Your task to perform on an android device: Open the calendar and show me this week's events? Image 0: 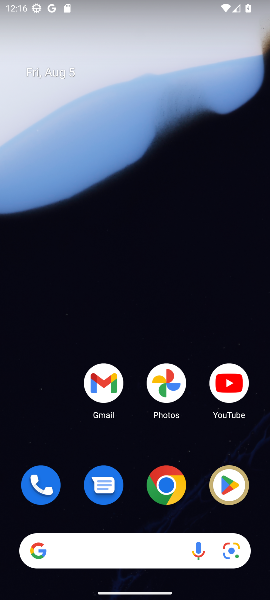
Step 0: drag from (49, 437) to (88, 12)
Your task to perform on an android device: Open the calendar and show me this week's events? Image 1: 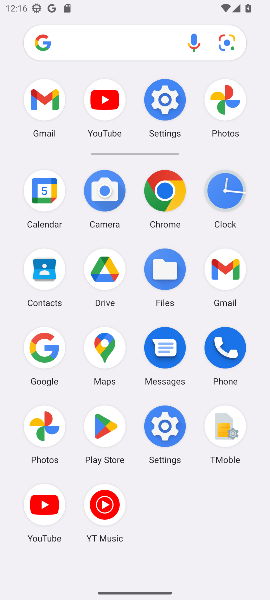
Step 1: click (41, 183)
Your task to perform on an android device: Open the calendar and show me this week's events? Image 2: 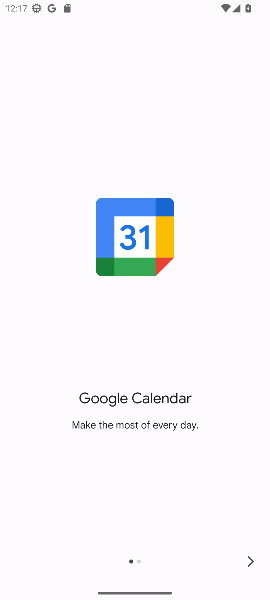
Step 2: click (243, 563)
Your task to perform on an android device: Open the calendar and show me this week's events? Image 3: 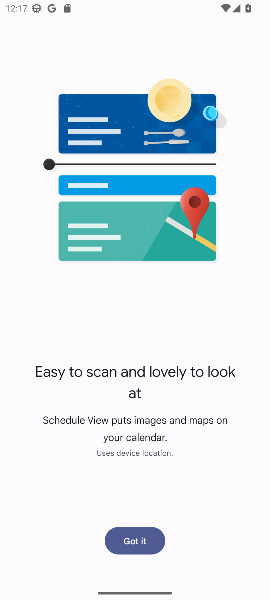
Step 3: click (130, 536)
Your task to perform on an android device: Open the calendar and show me this week's events? Image 4: 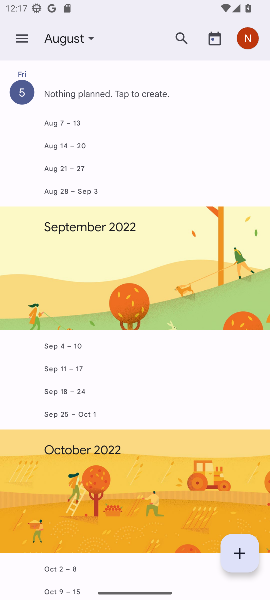
Step 4: click (16, 36)
Your task to perform on an android device: Open the calendar and show me this week's events? Image 5: 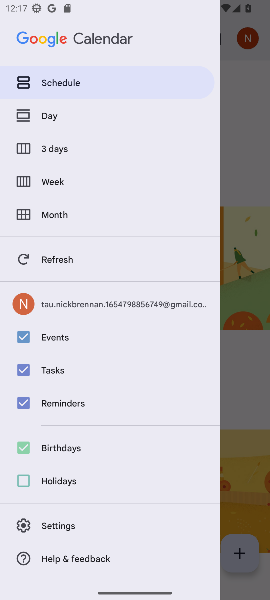
Step 5: click (42, 177)
Your task to perform on an android device: Open the calendar and show me this week's events? Image 6: 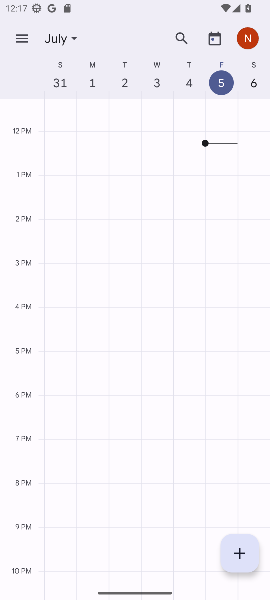
Step 6: task complete